Your task to perform on an android device: Go to Amazon Image 0: 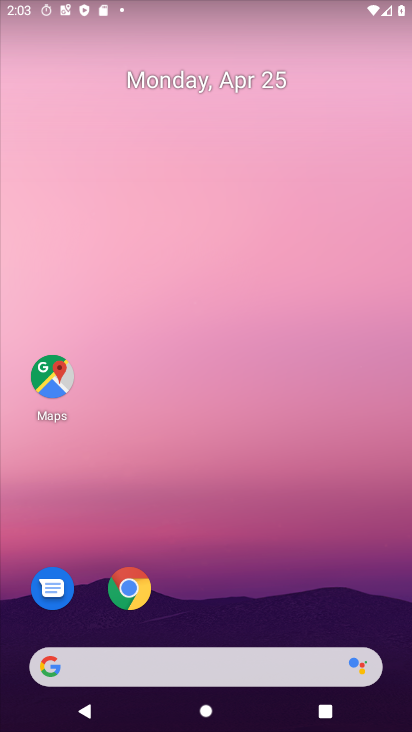
Step 0: click (128, 602)
Your task to perform on an android device: Go to Amazon Image 1: 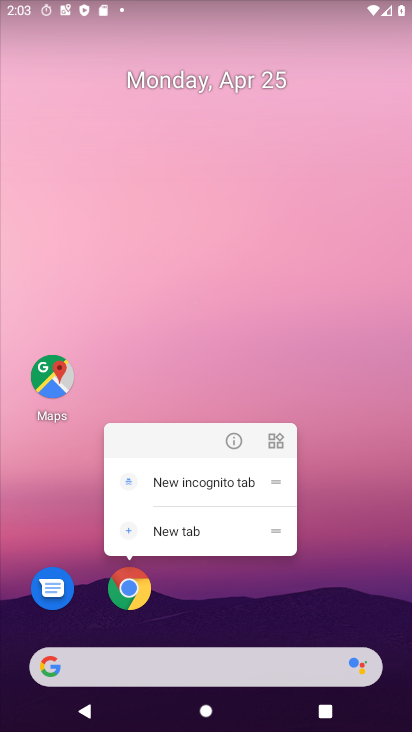
Step 1: click (235, 443)
Your task to perform on an android device: Go to Amazon Image 2: 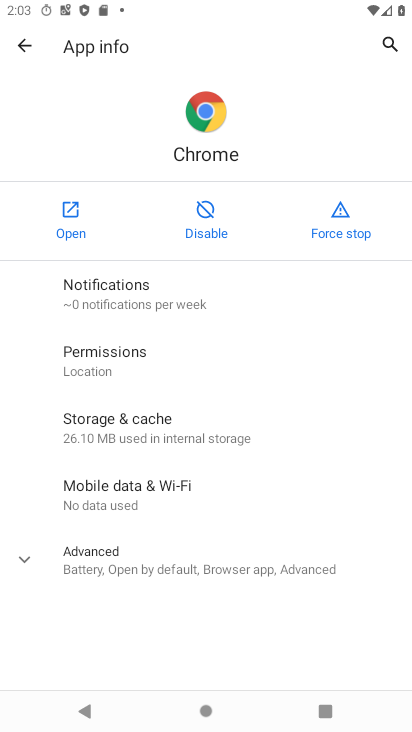
Step 2: click (71, 225)
Your task to perform on an android device: Go to Amazon Image 3: 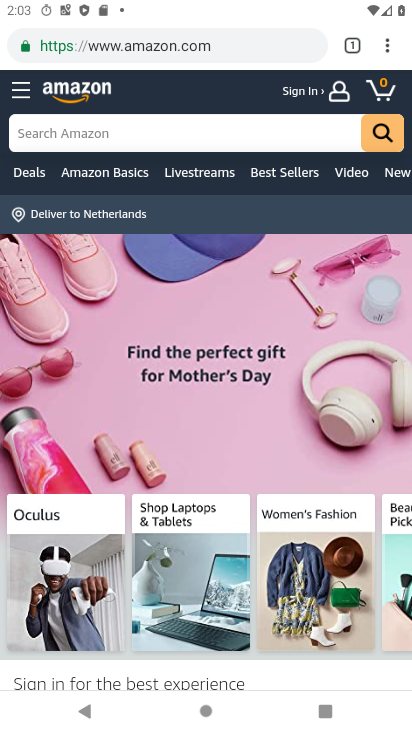
Step 3: click (384, 45)
Your task to perform on an android device: Go to Amazon Image 4: 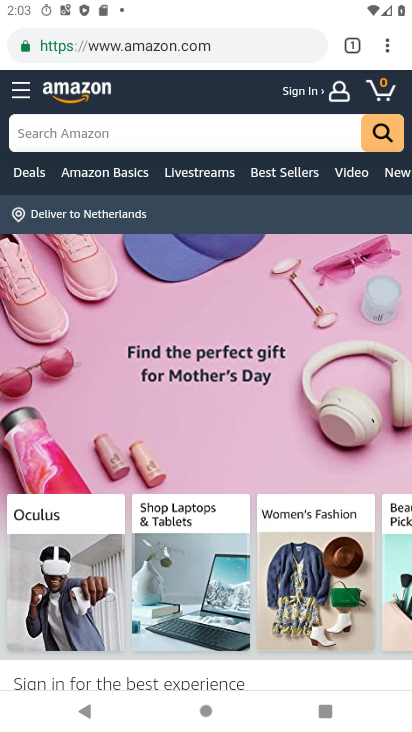
Step 4: click (386, 42)
Your task to perform on an android device: Go to Amazon Image 5: 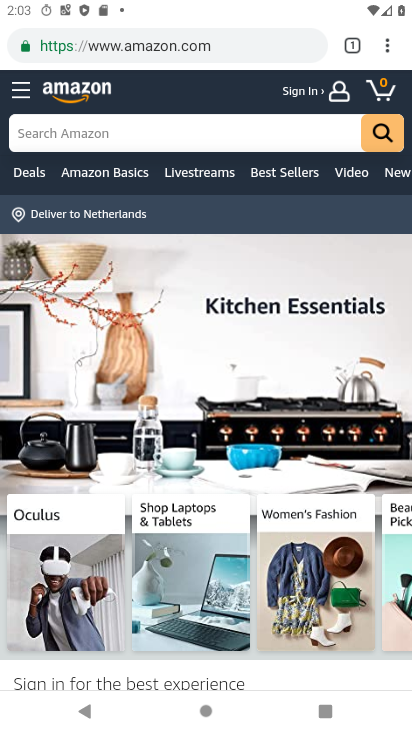
Step 5: task complete